Your task to perform on an android device: turn off translation in the chrome app Image 0: 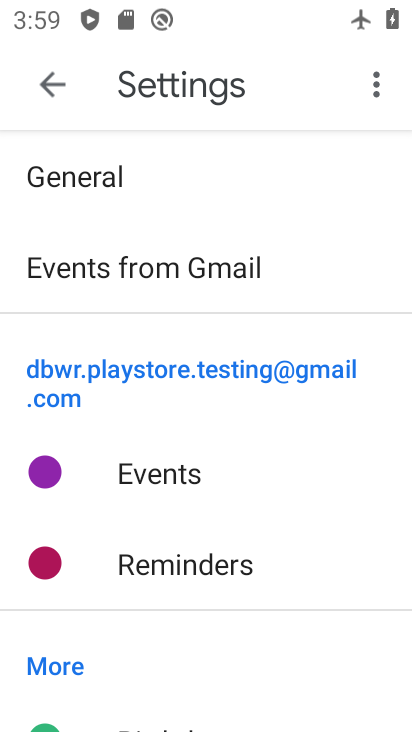
Step 0: press home button
Your task to perform on an android device: turn off translation in the chrome app Image 1: 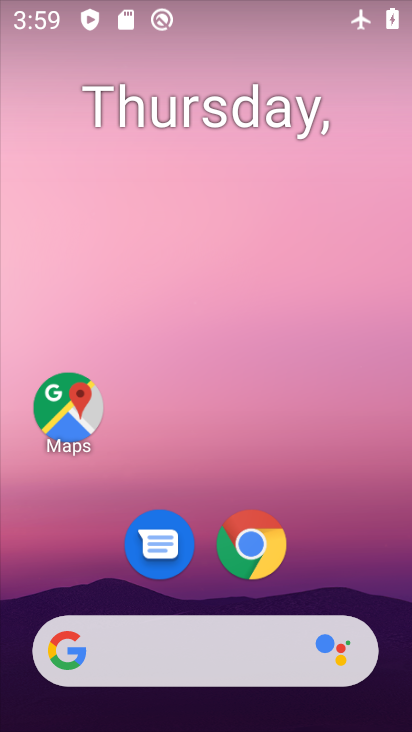
Step 1: click (239, 566)
Your task to perform on an android device: turn off translation in the chrome app Image 2: 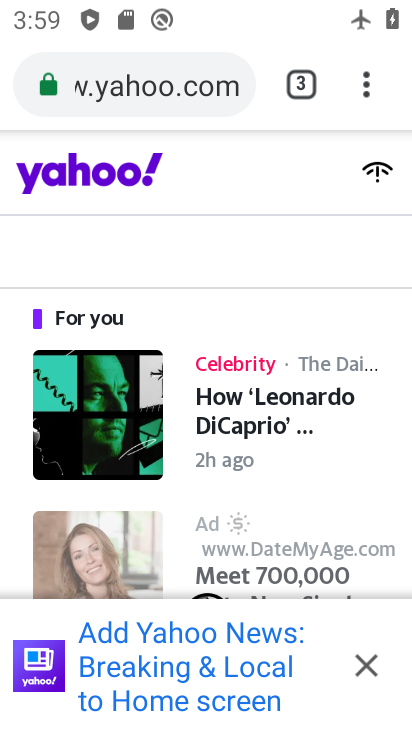
Step 2: click (363, 74)
Your task to perform on an android device: turn off translation in the chrome app Image 3: 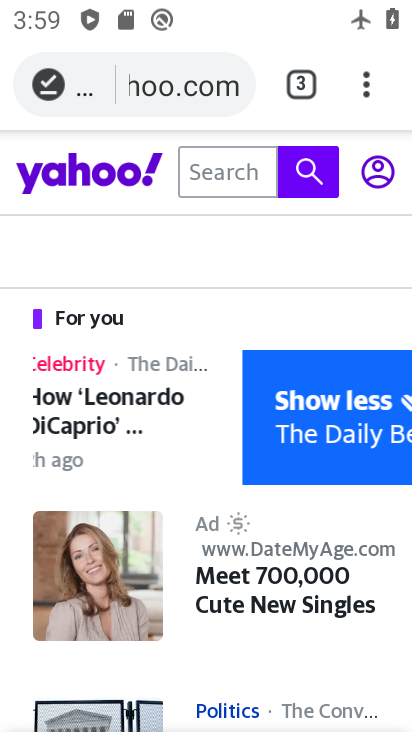
Step 3: click (359, 83)
Your task to perform on an android device: turn off translation in the chrome app Image 4: 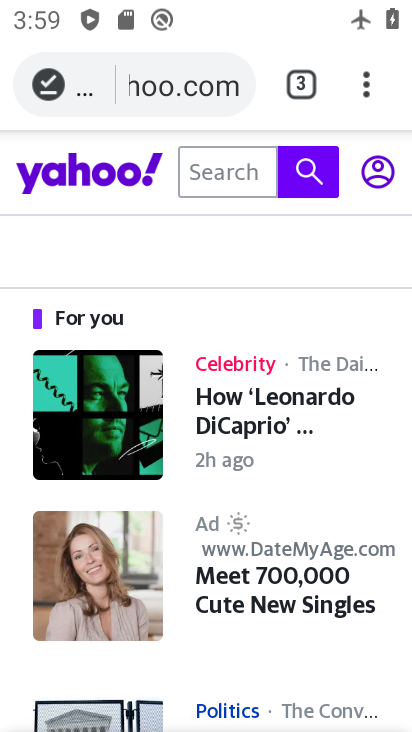
Step 4: click (362, 82)
Your task to perform on an android device: turn off translation in the chrome app Image 5: 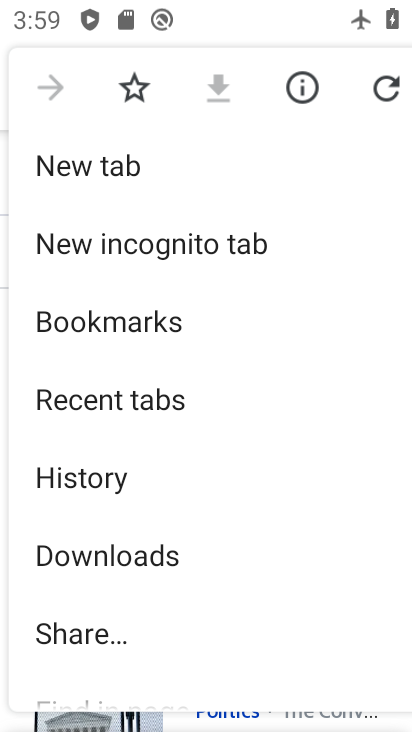
Step 5: drag from (247, 520) to (180, 82)
Your task to perform on an android device: turn off translation in the chrome app Image 6: 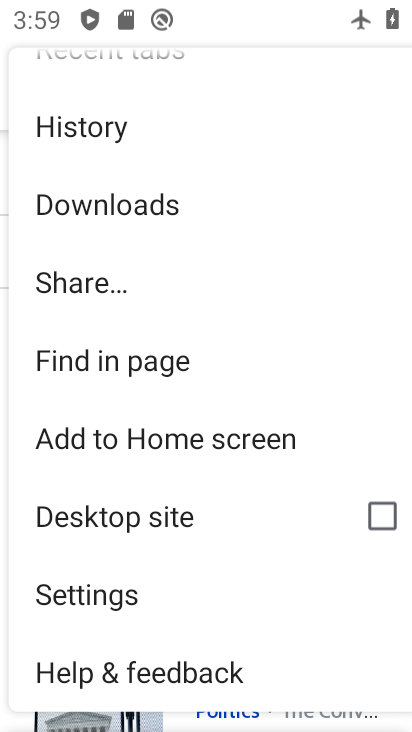
Step 6: click (115, 599)
Your task to perform on an android device: turn off translation in the chrome app Image 7: 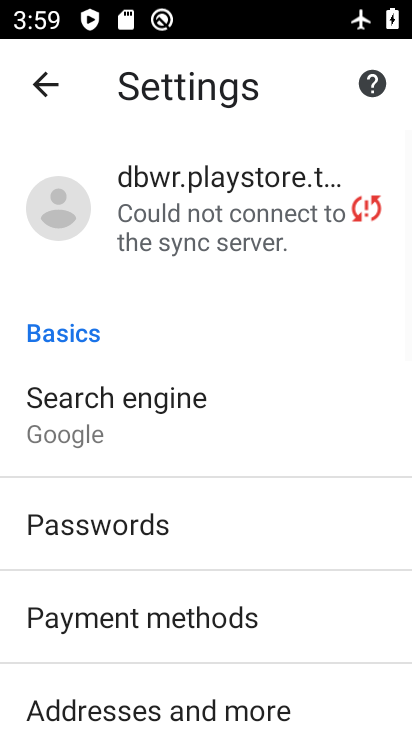
Step 7: drag from (190, 620) to (163, 298)
Your task to perform on an android device: turn off translation in the chrome app Image 8: 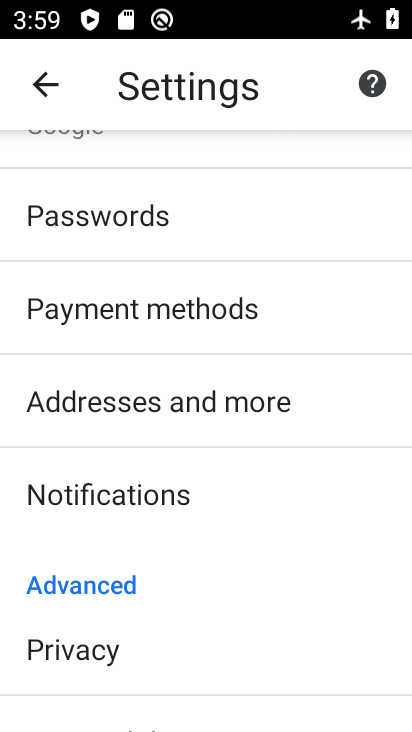
Step 8: drag from (232, 558) to (266, 279)
Your task to perform on an android device: turn off translation in the chrome app Image 9: 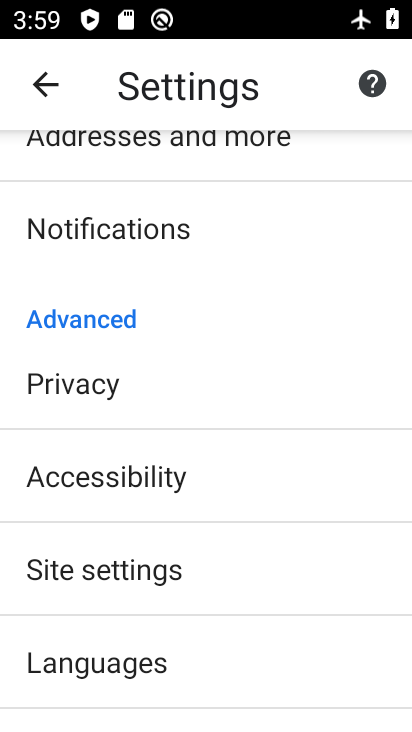
Step 9: drag from (215, 598) to (168, 199)
Your task to perform on an android device: turn off translation in the chrome app Image 10: 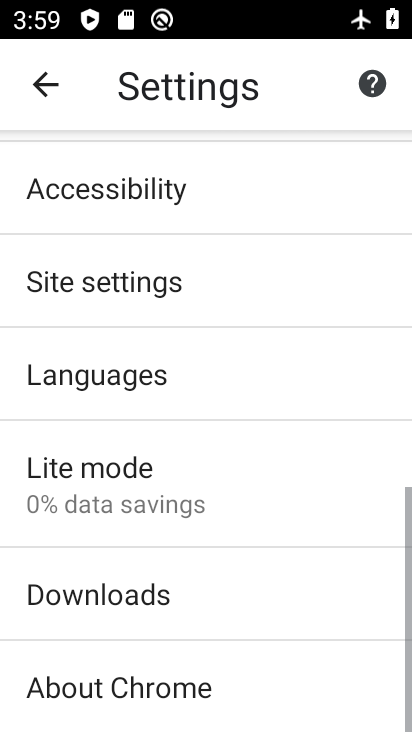
Step 10: drag from (200, 599) to (201, 201)
Your task to perform on an android device: turn off translation in the chrome app Image 11: 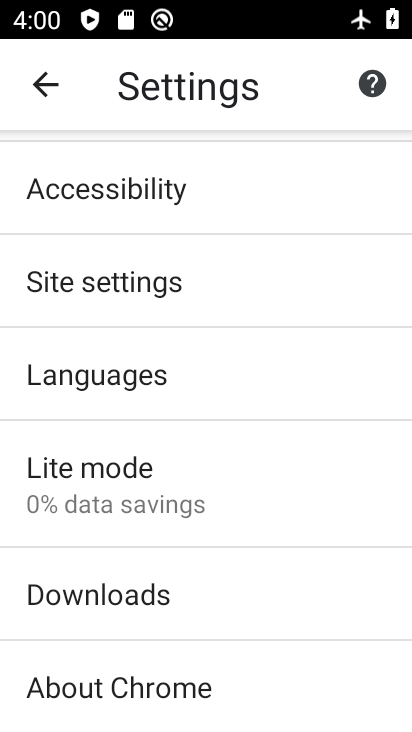
Step 11: click (185, 383)
Your task to perform on an android device: turn off translation in the chrome app Image 12: 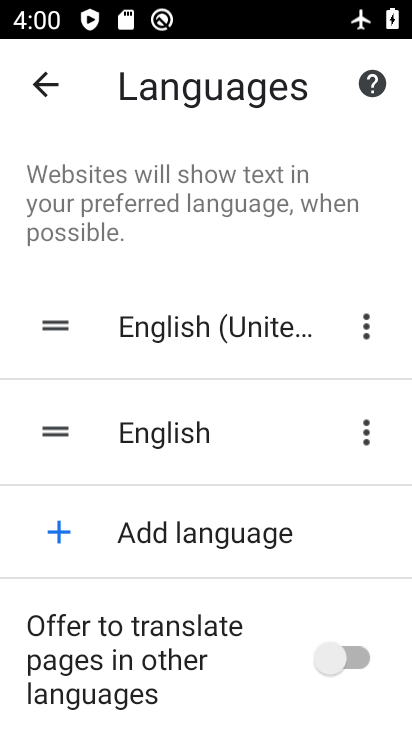
Step 12: task complete